Your task to perform on an android device: Open Yahoo.com Image 0: 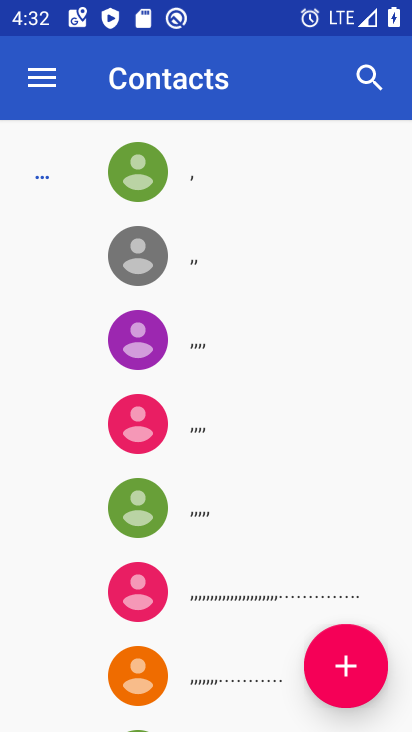
Step 0: press home button
Your task to perform on an android device: Open Yahoo.com Image 1: 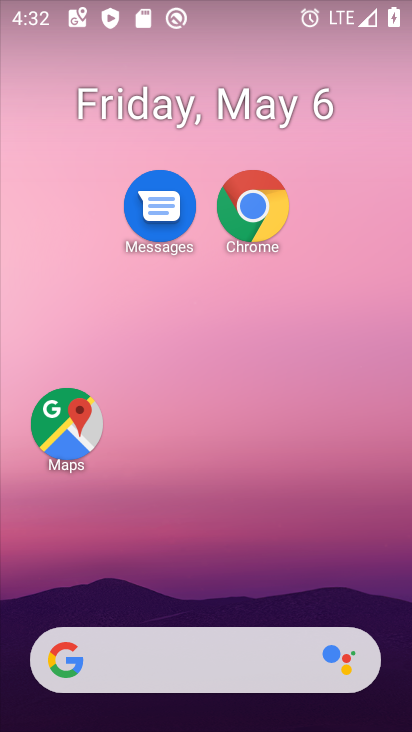
Step 1: drag from (174, 619) to (209, 301)
Your task to perform on an android device: Open Yahoo.com Image 2: 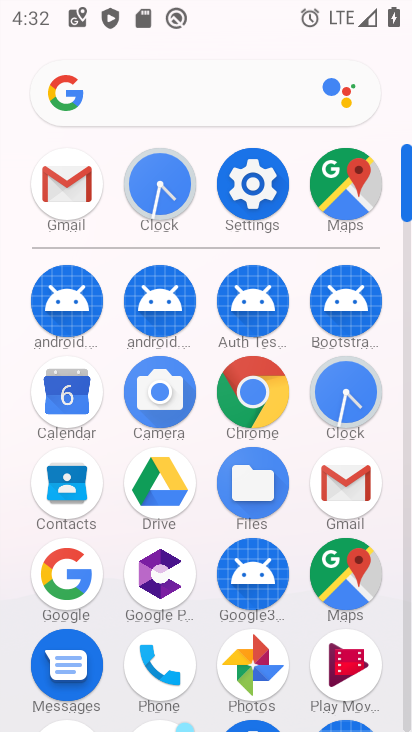
Step 2: click (242, 400)
Your task to perform on an android device: Open Yahoo.com Image 3: 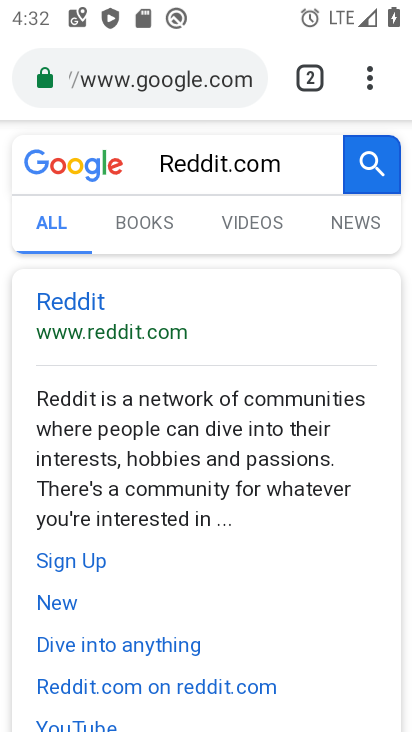
Step 3: click (311, 87)
Your task to perform on an android device: Open Yahoo.com Image 4: 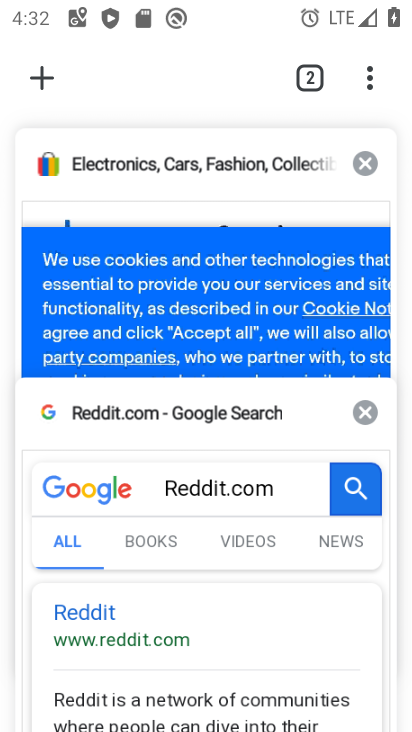
Step 4: click (363, 162)
Your task to perform on an android device: Open Yahoo.com Image 5: 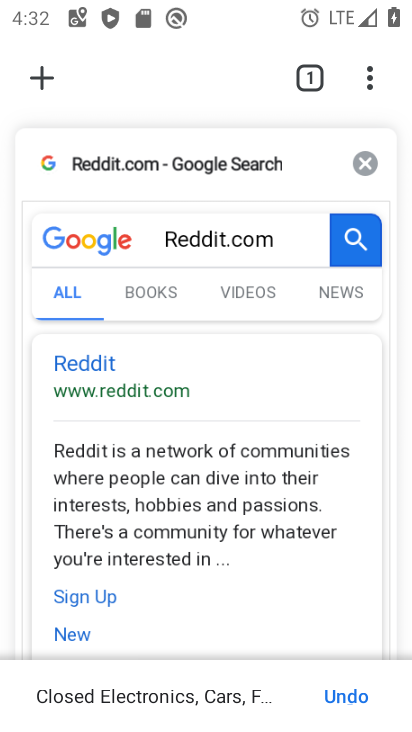
Step 5: click (363, 162)
Your task to perform on an android device: Open Yahoo.com Image 6: 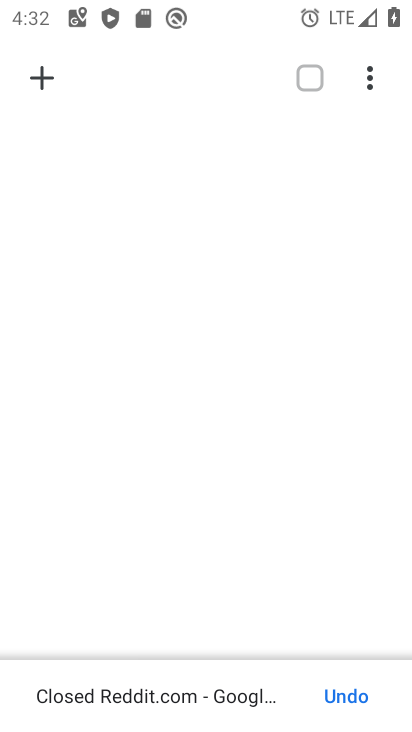
Step 6: click (36, 71)
Your task to perform on an android device: Open Yahoo.com Image 7: 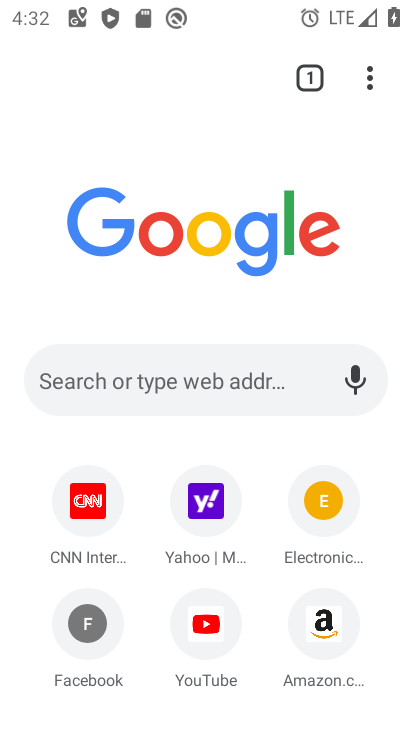
Step 7: click (217, 523)
Your task to perform on an android device: Open Yahoo.com Image 8: 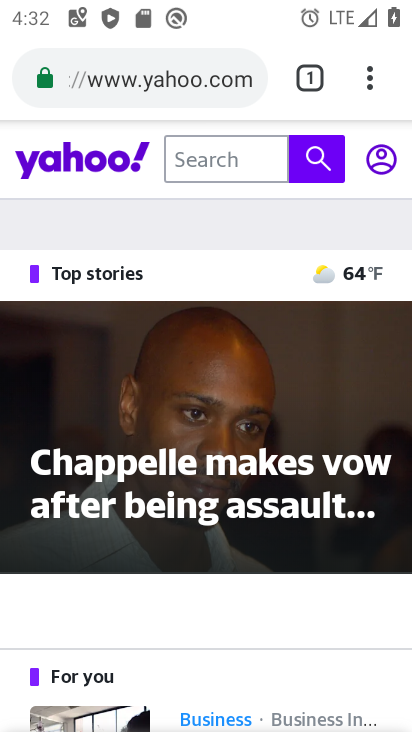
Step 8: task complete